Your task to perform on an android device: find snoozed emails in the gmail app Image 0: 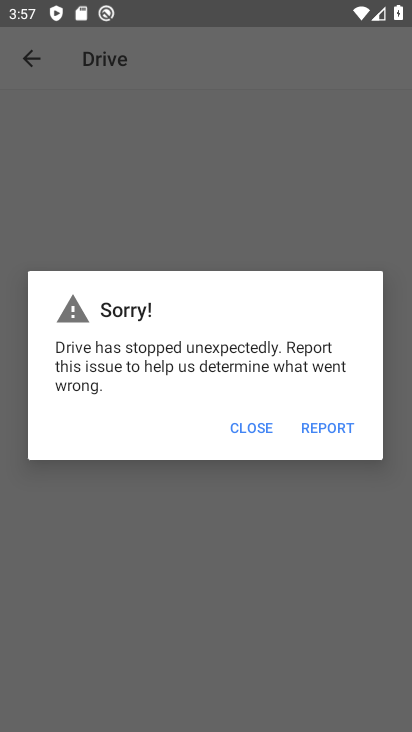
Step 0: press home button
Your task to perform on an android device: find snoozed emails in the gmail app Image 1: 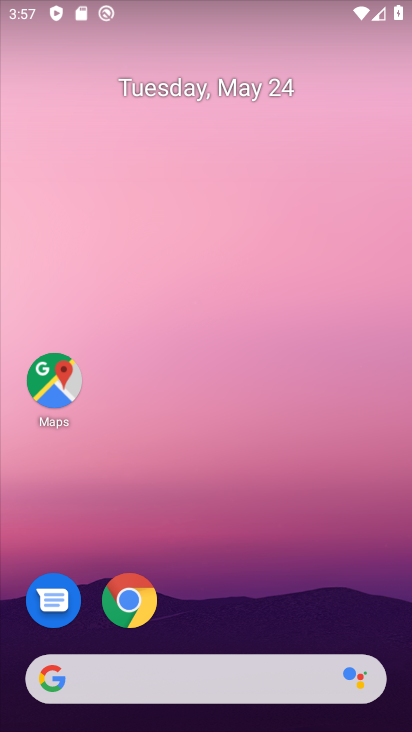
Step 1: drag from (98, 711) to (242, 36)
Your task to perform on an android device: find snoozed emails in the gmail app Image 2: 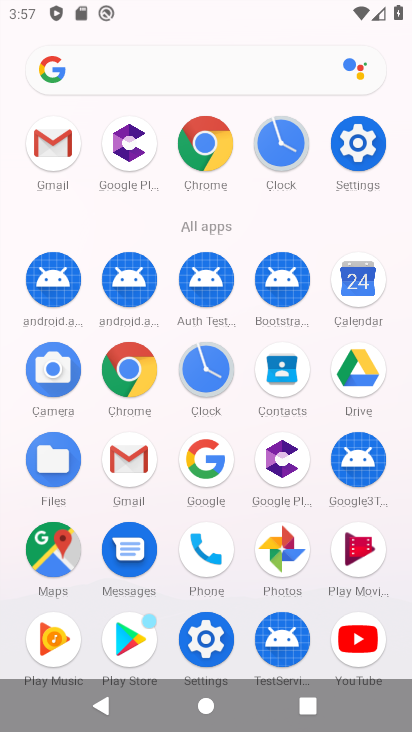
Step 2: click (142, 457)
Your task to perform on an android device: find snoozed emails in the gmail app Image 3: 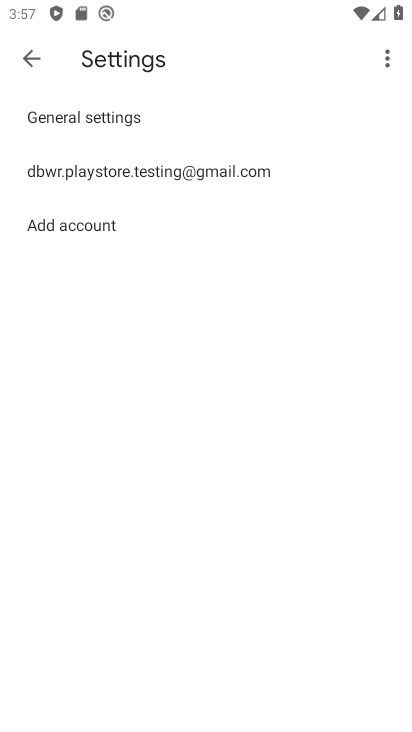
Step 3: press back button
Your task to perform on an android device: find snoozed emails in the gmail app Image 4: 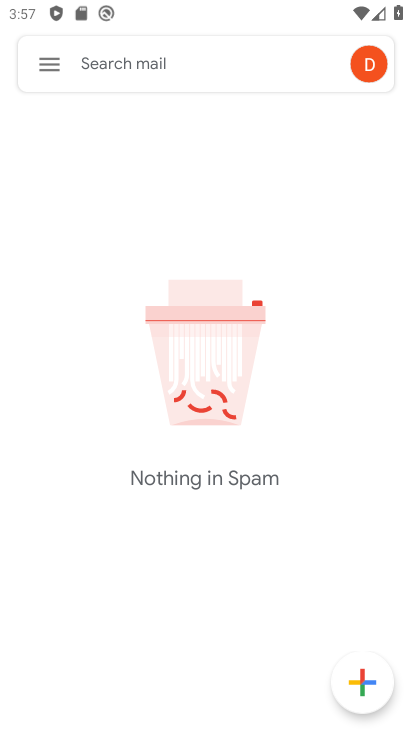
Step 4: click (52, 73)
Your task to perform on an android device: find snoozed emails in the gmail app Image 5: 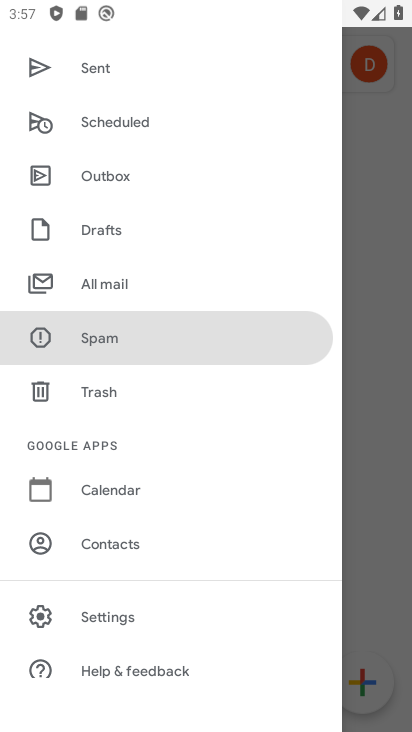
Step 5: click (175, 625)
Your task to perform on an android device: find snoozed emails in the gmail app Image 6: 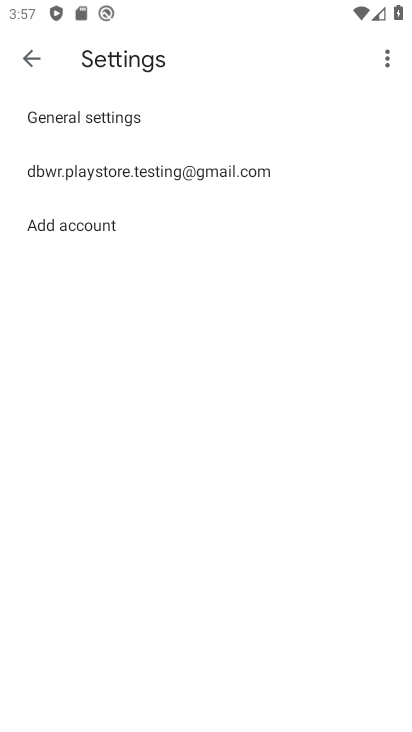
Step 6: press back button
Your task to perform on an android device: find snoozed emails in the gmail app Image 7: 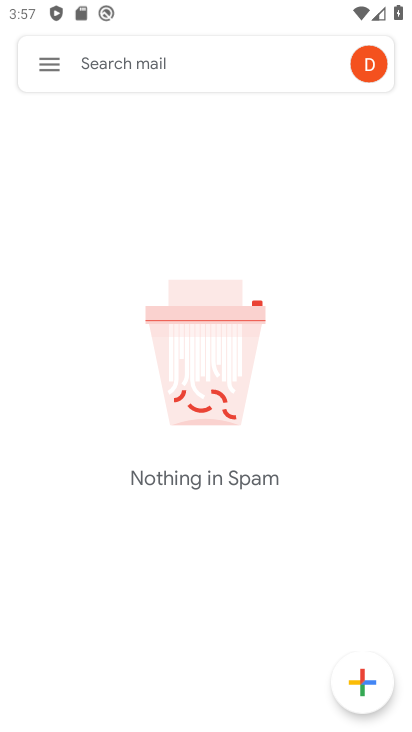
Step 7: click (36, 59)
Your task to perform on an android device: find snoozed emails in the gmail app Image 8: 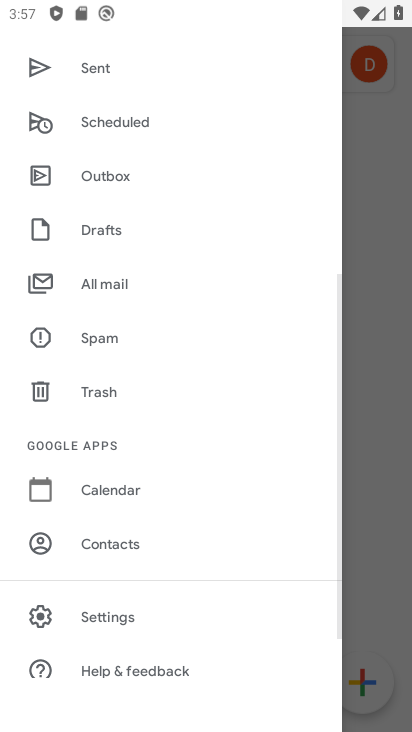
Step 8: drag from (138, 247) to (138, 586)
Your task to perform on an android device: find snoozed emails in the gmail app Image 9: 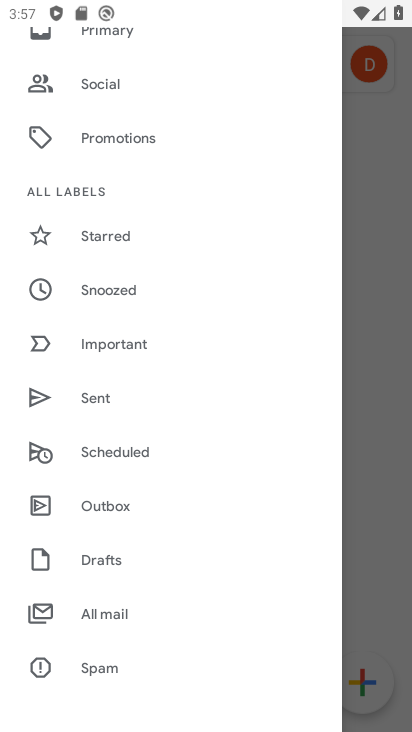
Step 9: click (91, 295)
Your task to perform on an android device: find snoozed emails in the gmail app Image 10: 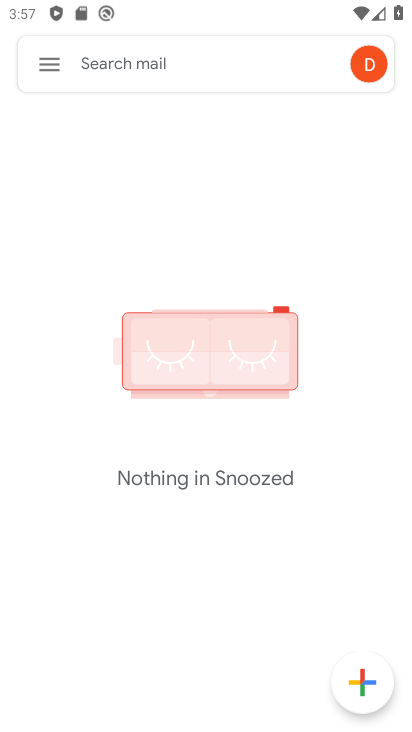
Step 10: task complete